Your task to perform on an android device: open chrome and create a bookmark for the current page Image 0: 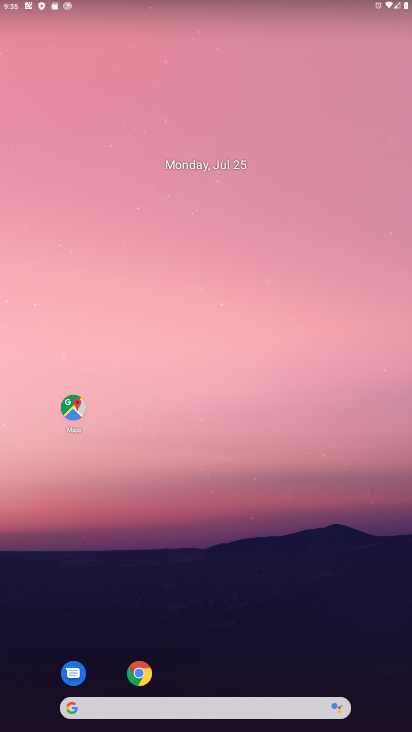
Step 0: click (138, 671)
Your task to perform on an android device: open chrome and create a bookmark for the current page Image 1: 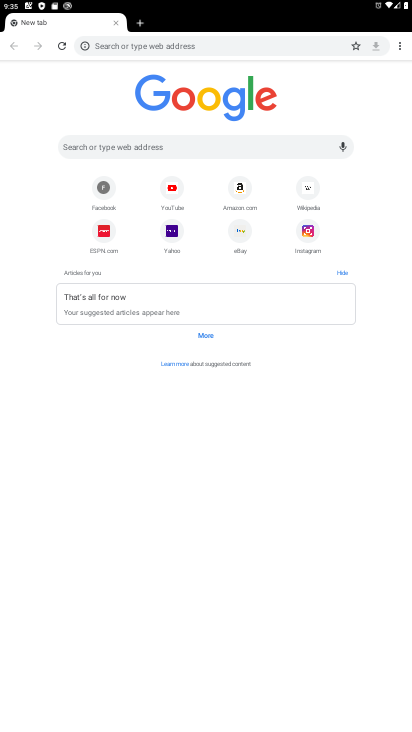
Step 1: click (348, 41)
Your task to perform on an android device: open chrome and create a bookmark for the current page Image 2: 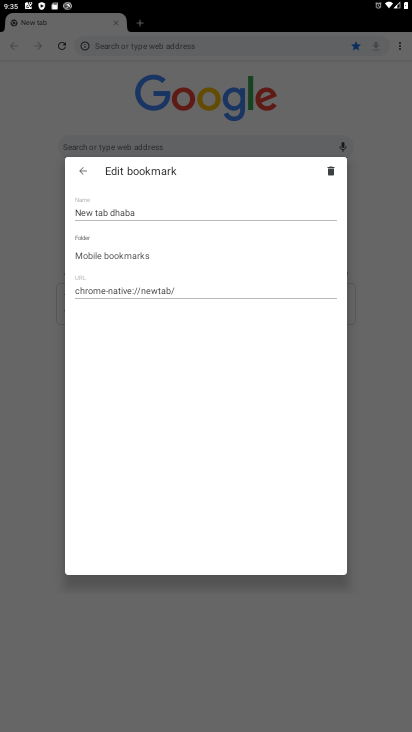
Step 2: task complete